Your task to perform on an android device: turn on sleep mode Image 0: 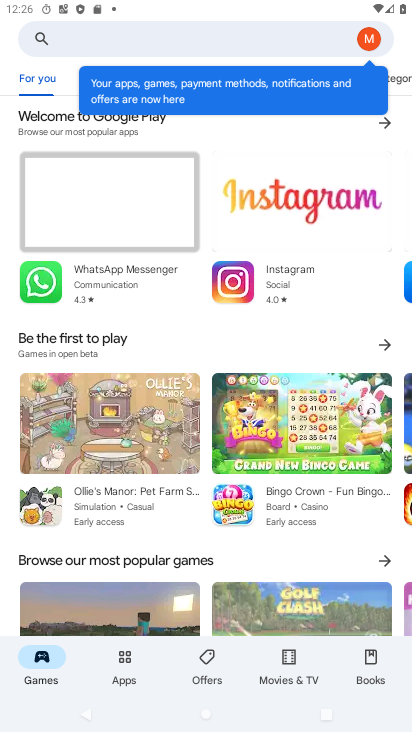
Step 0: press back button
Your task to perform on an android device: turn on sleep mode Image 1: 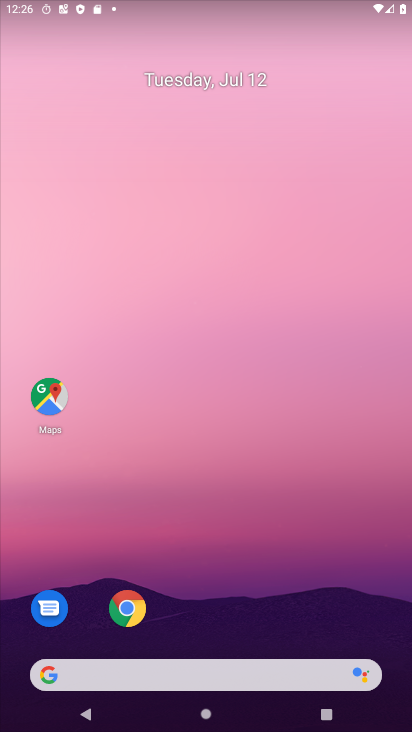
Step 1: click (257, 358)
Your task to perform on an android device: turn on sleep mode Image 2: 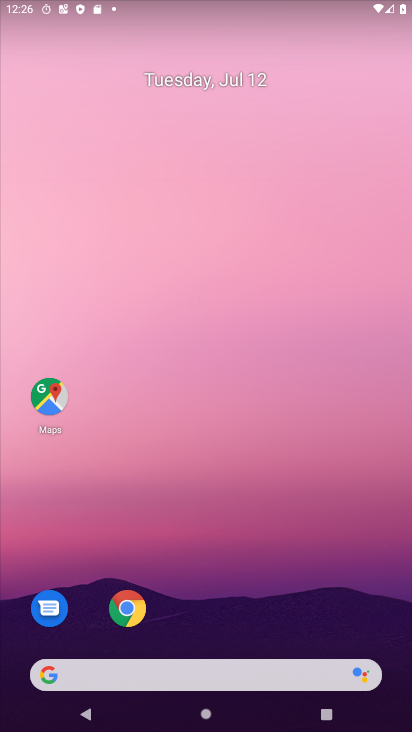
Step 2: drag from (230, 492) to (189, 189)
Your task to perform on an android device: turn on sleep mode Image 3: 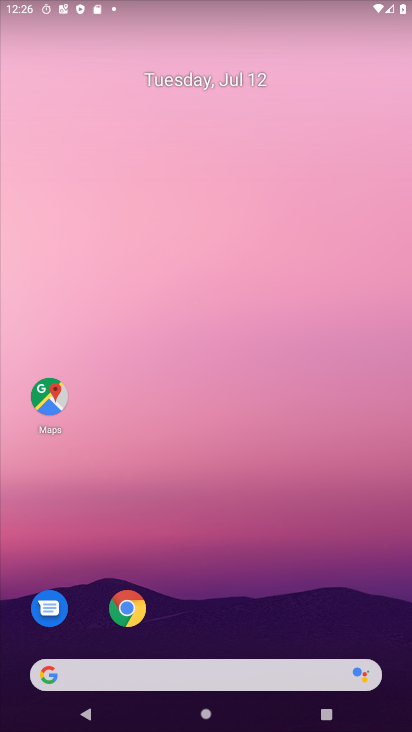
Step 3: drag from (248, 655) to (168, 55)
Your task to perform on an android device: turn on sleep mode Image 4: 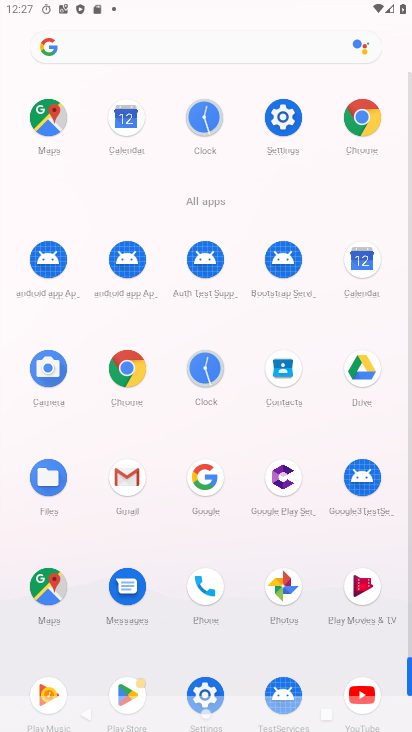
Step 4: click (286, 124)
Your task to perform on an android device: turn on sleep mode Image 5: 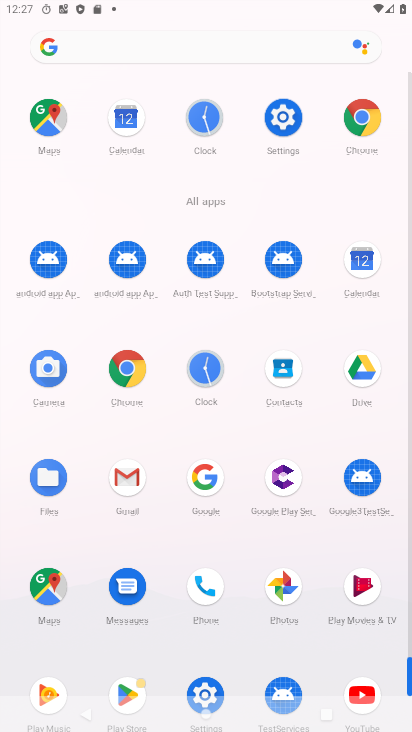
Step 5: click (286, 124)
Your task to perform on an android device: turn on sleep mode Image 6: 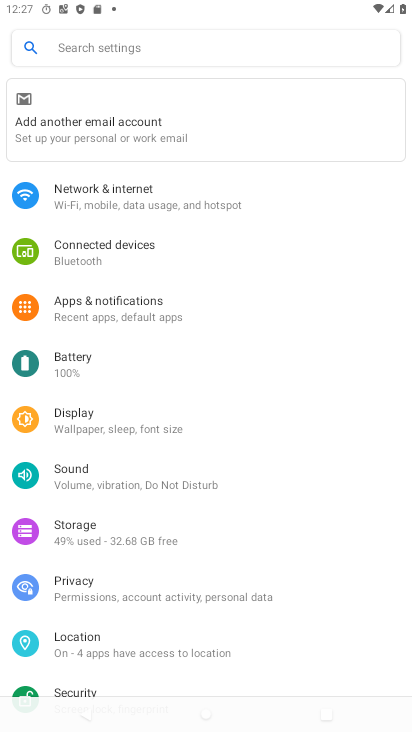
Step 6: click (83, 412)
Your task to perform on an android device: turn on sleep mode Image 7: 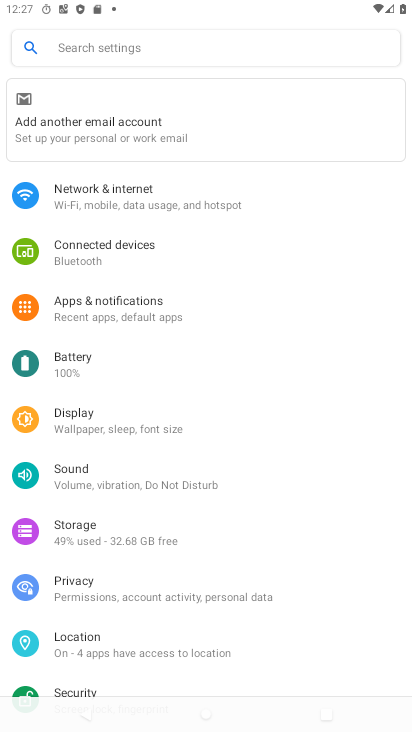
Step 7: click (83, 412)
Your task to perform on an android device: turn on sleep mode Image 8: 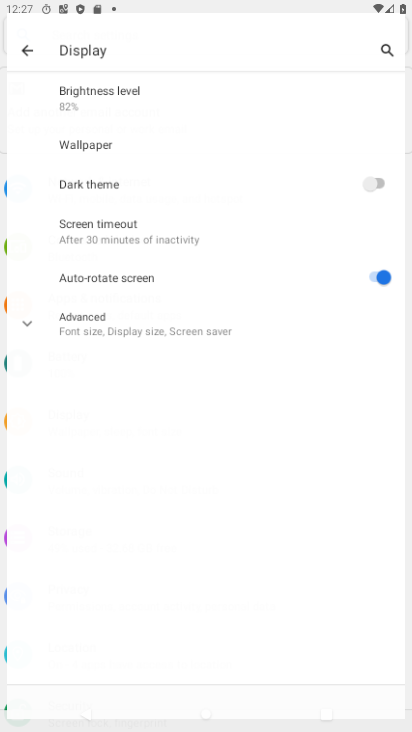
Step 8: click (84, 412)
Your task to perform on an android device: turn on sleep mode Image 9: 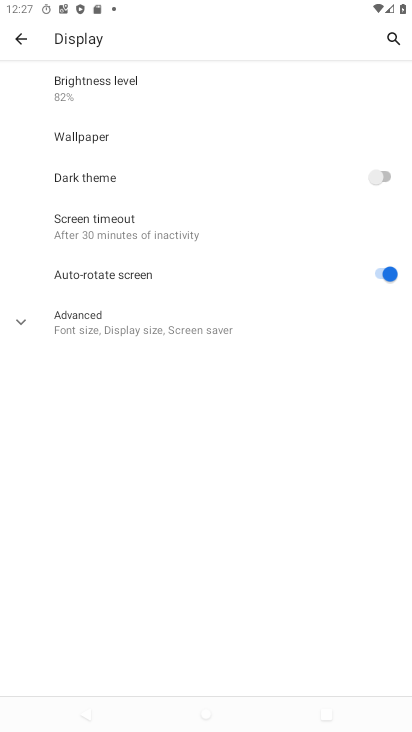
Step 9: task complete